Your task to perform on an android device: toggle show notifications on the lock screen Image 0: 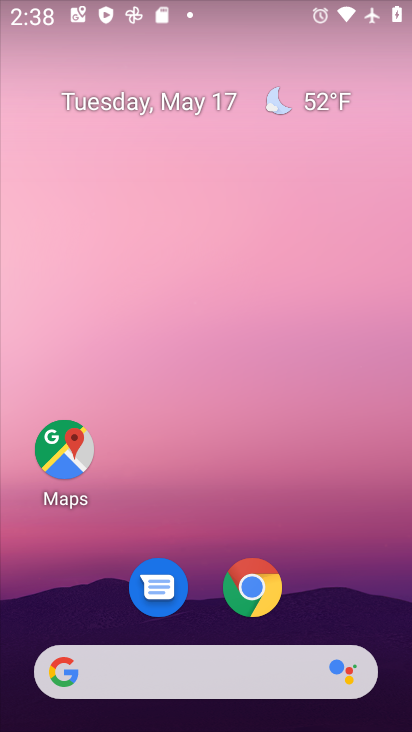
Step 0: drag from (323, 602) to (331, 1)
Your task to perform on an android device: toggle show notifications on the lock screen Image 1: 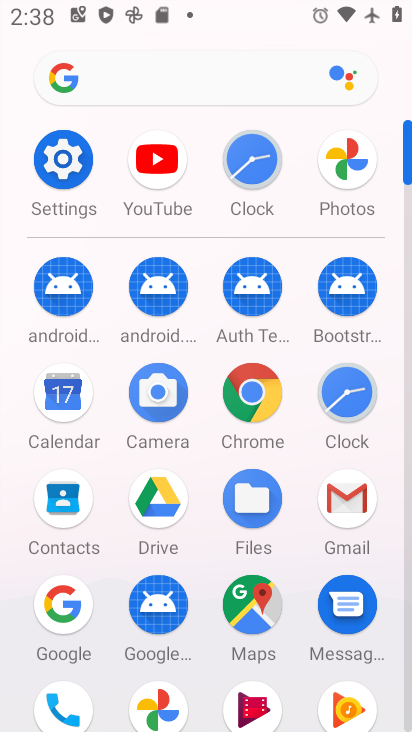
Step 1: click (34, 152)
Your task to perform on an android device: toggle show notifications on the lock screen Image 2: 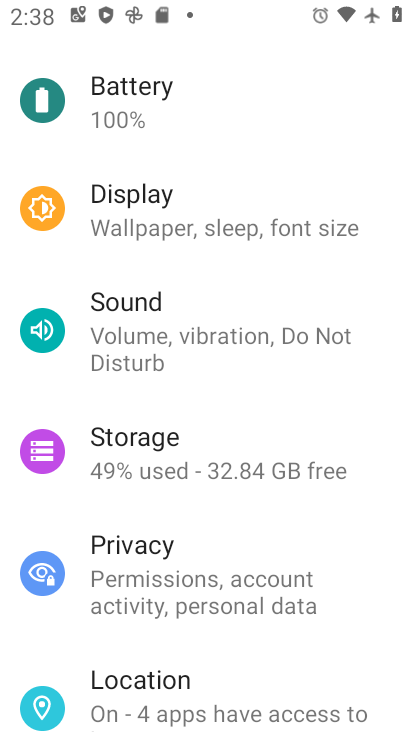
Step 2: drag from (216, 201) to (182, 468)
Your task to perform on an android device: toggle show notifications on the lock screen Image 3: 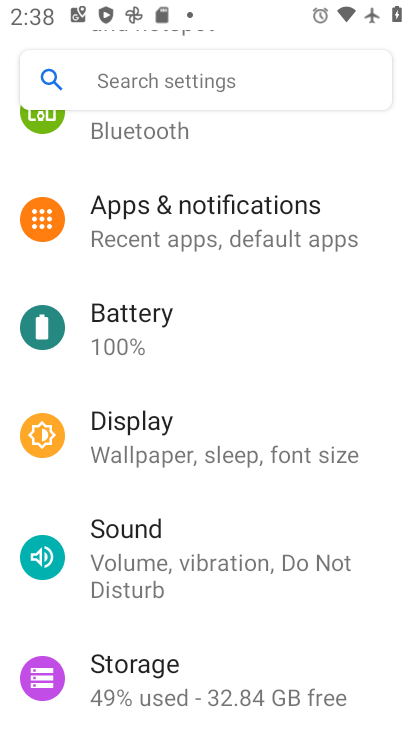
Step 3: click (244, 207)
Your task to perform on an android device: toggle show notifications on the lock screen Image 4: 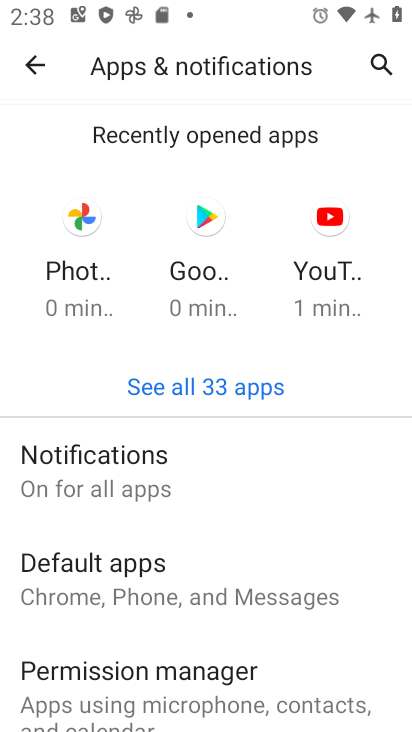
Step 4: drag from (153, 606) to (260, 394)
Your task to perform on an android device: toggle show notifications on the lock screen Image 5: 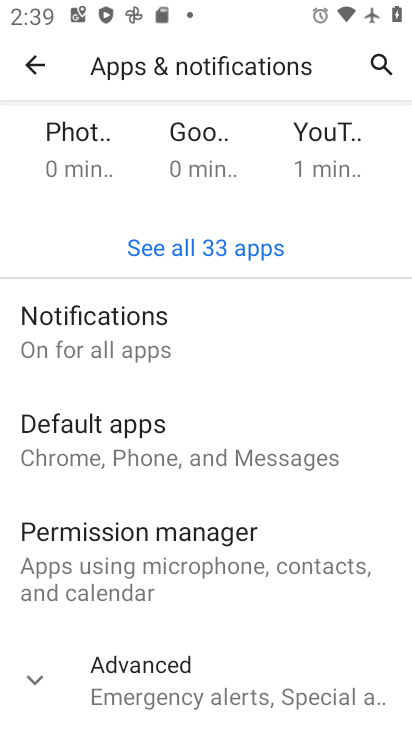
Step 5: click (134, 666)
Your task to perform on an android device: toggle show notifications on the lock screen Image 6: 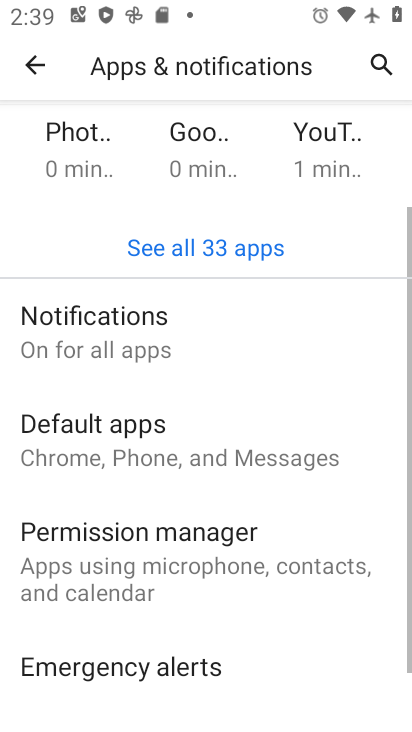
Step 6: drag from (233, 593) to (312, 208)
Your task to perform on an android device: toggle show notifications on the lock screen Image 7: 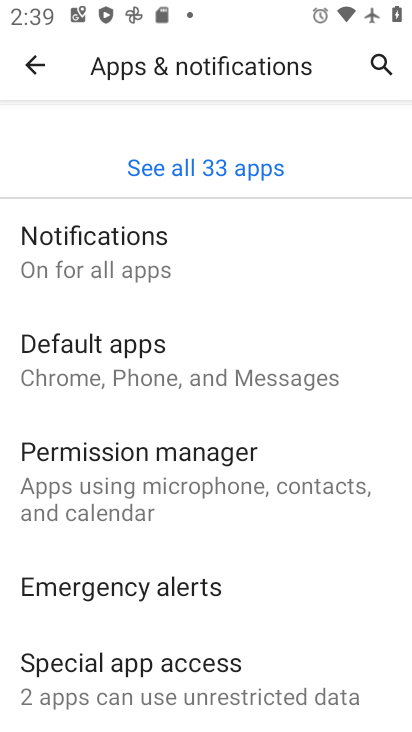
Step 7: click (173, 275)
Your task to perform on an android device: toggle show notifications on the lock screen Image 8: 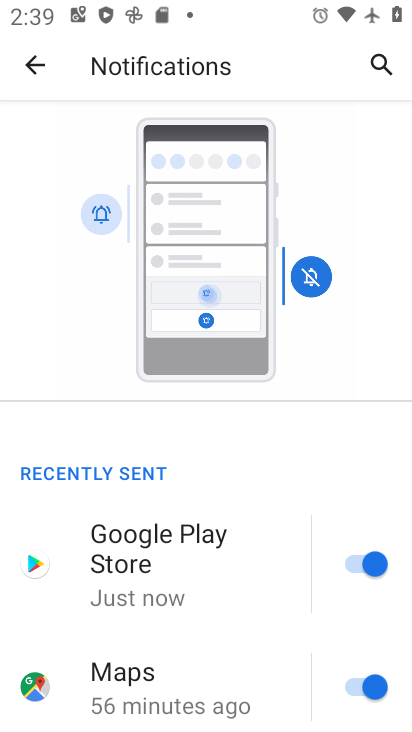
Step 8: drag from (98, 605) to (215, 190)
Your task to perform on an android device: toggle show notifications on the lock screen Image 9: 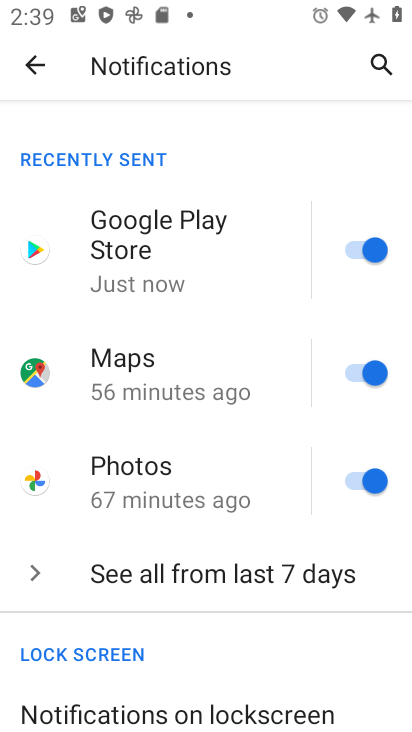
Step 9: drag from (103, 660) to (274, 301)
Your task to perform on an android device: toggle show notifications on the lock screen Image 10: 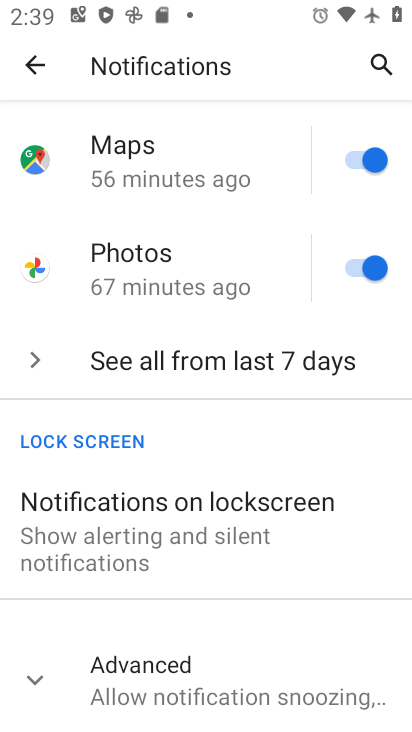
Step 10: drag from (158, 617) to (235, 323)
Your task to perform on an android device: toggle show notifications on the lock screen Image 11: 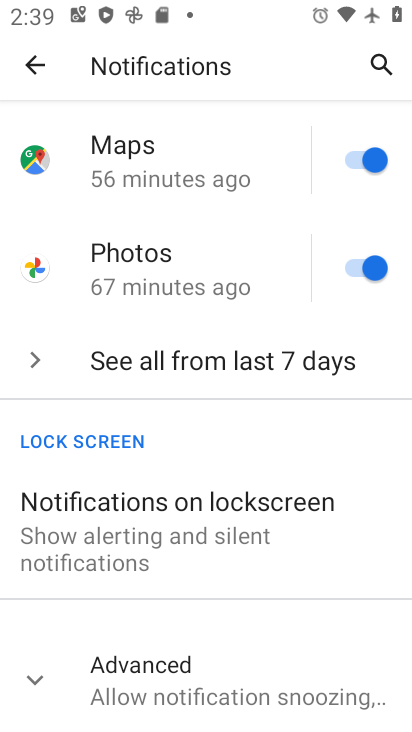
Step 11: click (188, 541)
Your task to perform on an android device: toggle show notifications on the lock screen Image 12: 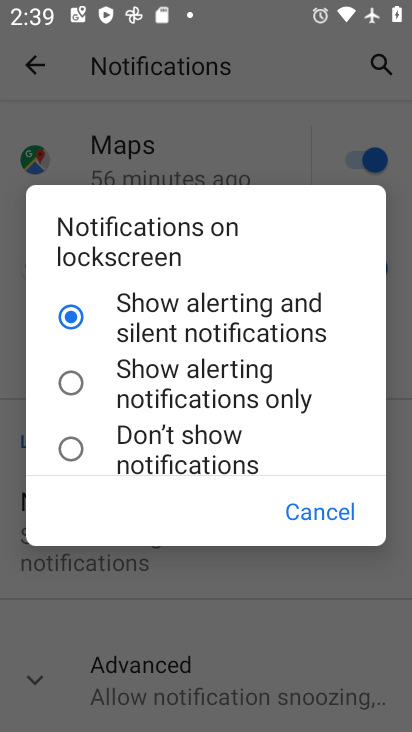
Step 12: click (161, 389)
Your task to perform on an android device: toggle show notifications on the lock screen Image 13: 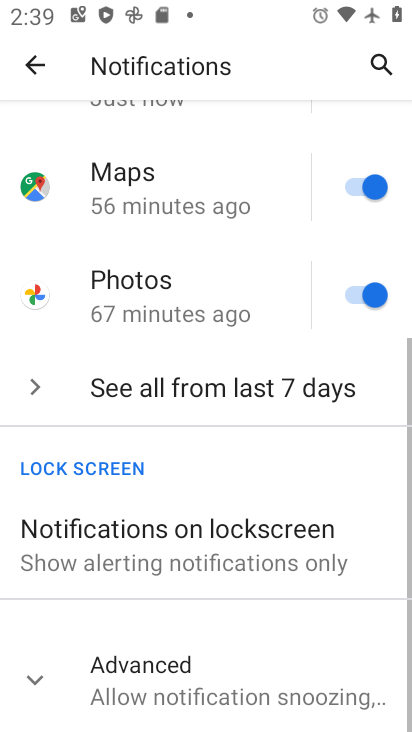
Step 13: task complete